Your task to perform on an android device: Go to Maps Image 0: 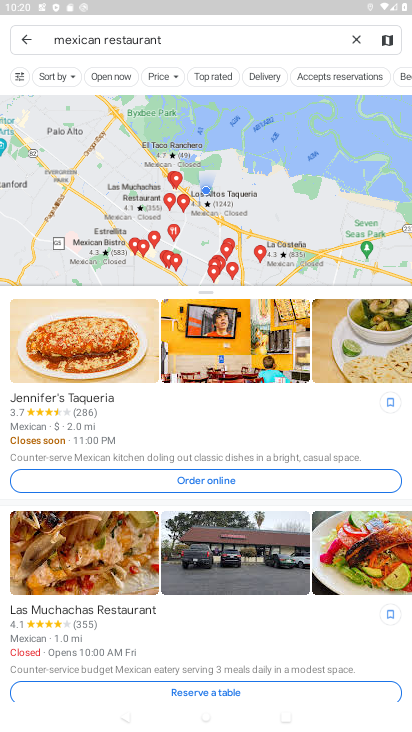
Step 0: press home button
Your task to perform on an android device: Go to Maps Image 1: 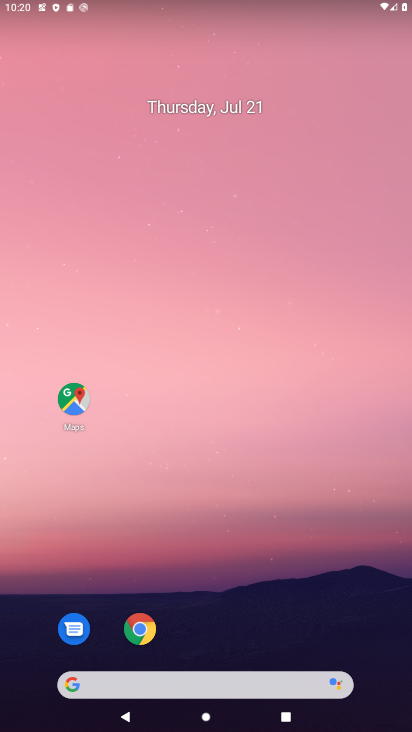
Step 1: click (64, 402)
Your task to perform on an android device: Go to Maps Image 2: 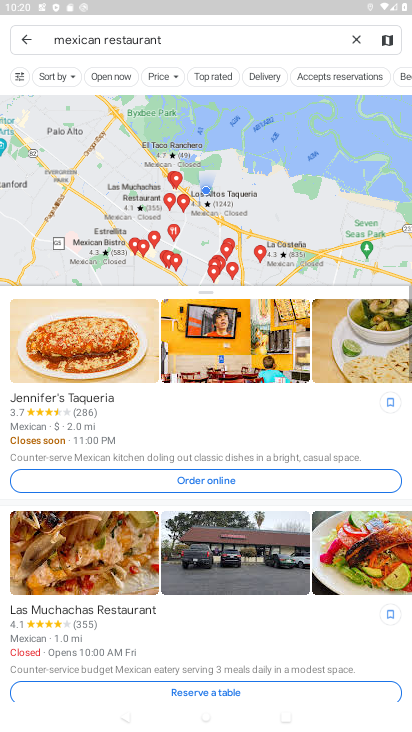
Step 2: click (25, 39)
Your task to perform on an android device: Go to Maps Image 3: 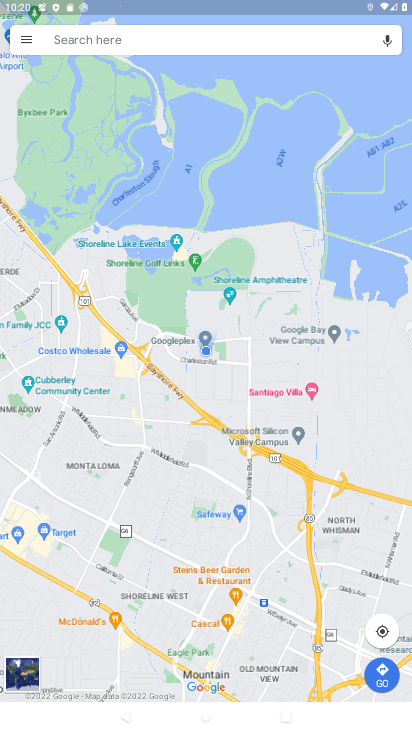
Step 3: task complete